Your task to perform on an android device: open device folders in google photos Image 0: 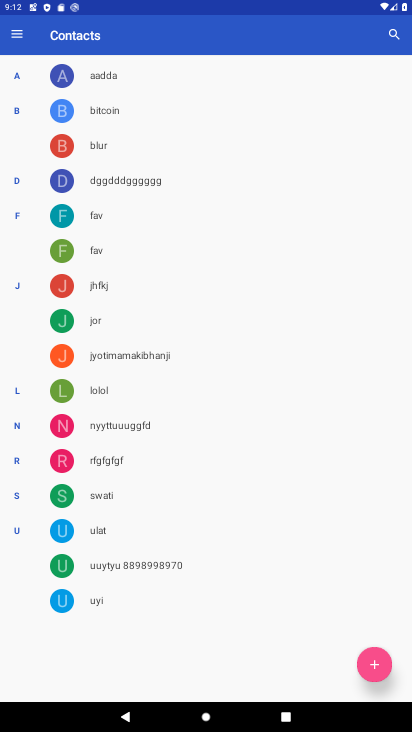
Step 0: press home button
Your task to perform on an android device: open device folders in google photos Image 1: 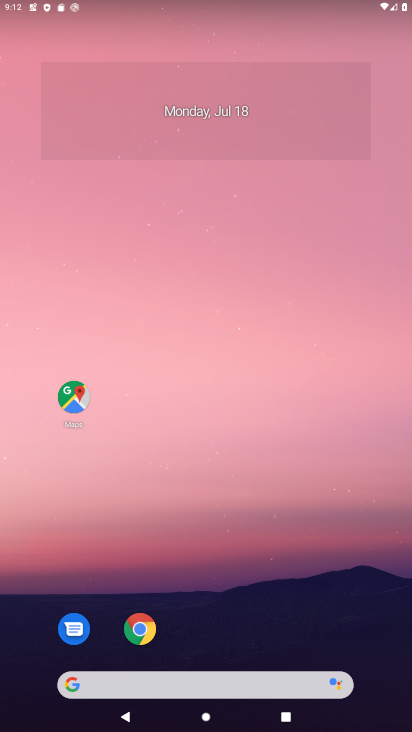
Step 1: drag from (298, 617) to (290, 75)
Your task to perform on an android device: open device folders in google photos Image 2: 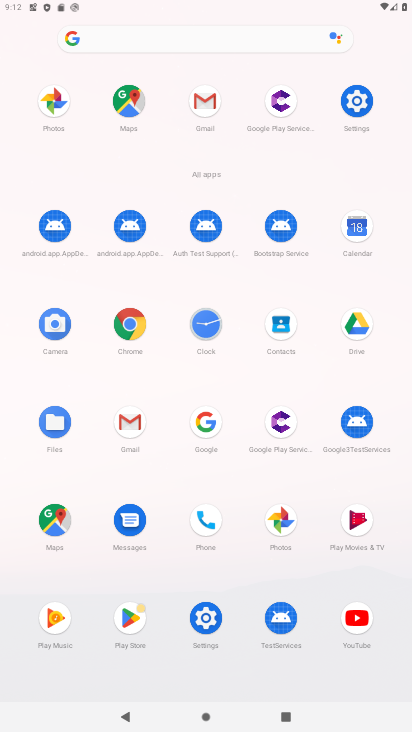
Step 2: click (279, 525)
Your task to perform on an android device: open device folders in google photos Image 3: 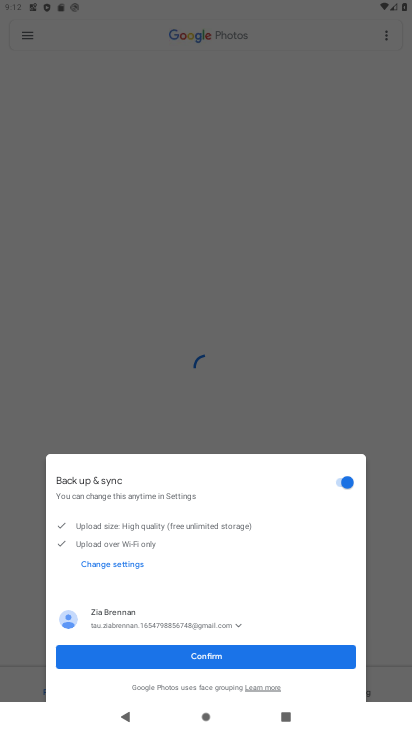
Step 3: click (282, 658)
Your task to perform on an android device: open device folders in google photos Image 4: 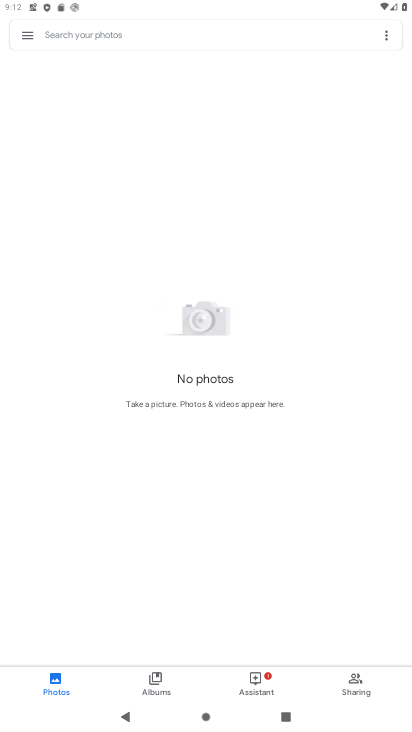
Step 4: click (27, 32)
Your task to perform on an android device: open device folders in google photos Image 5: 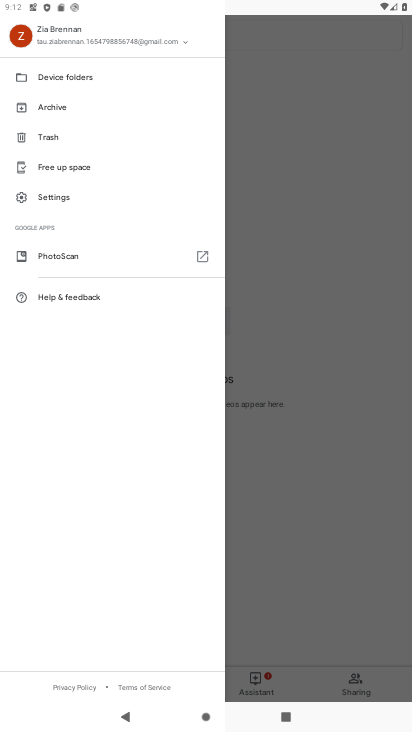
Step 5: click (77, 75)
Your task to perform on an android device: open device folders in google photos Image 6: 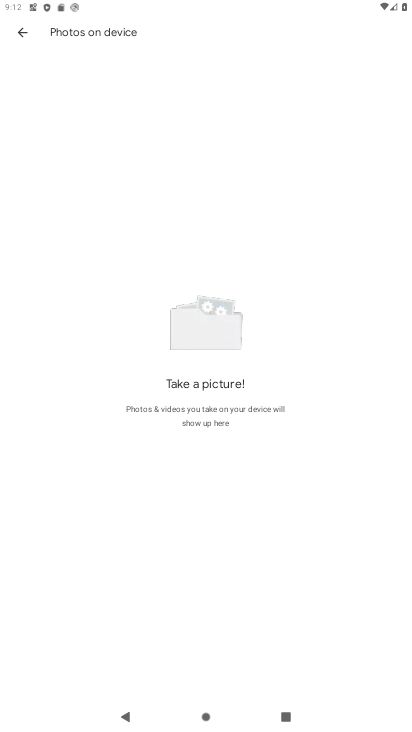
Step 6: task complete